Your task to perform on an android device: set an alarm Image 0: 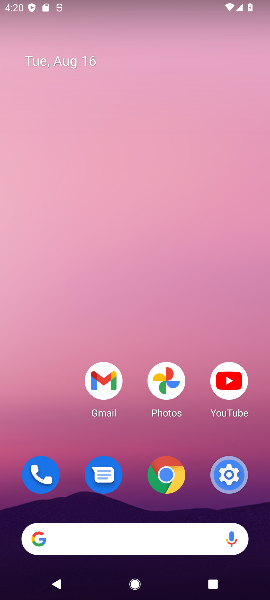
Step 0: drag from (203, 504) to (116, 2)
Your task to perform on an android device: set an alarm Image 1: 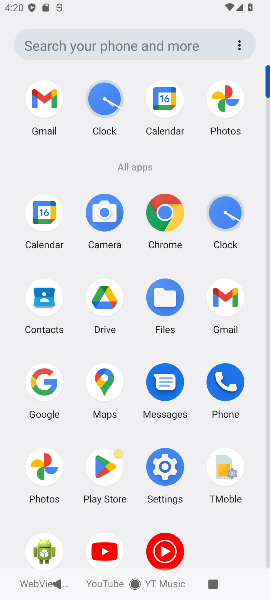
Step 1: click (225, 228)
Your task to perform on an android device: set an alarm Image 2: 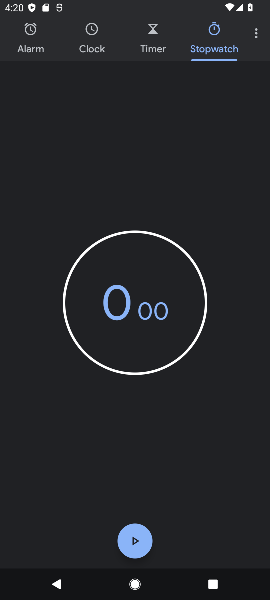
Step 2: click (31, 43)
Your task to perform on an android device: set an alarm Image 3: 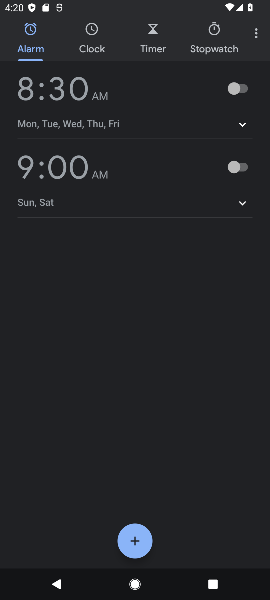
Step 3: click (237, 84)
Your task to perform on an android device: set an alarm Image 4: 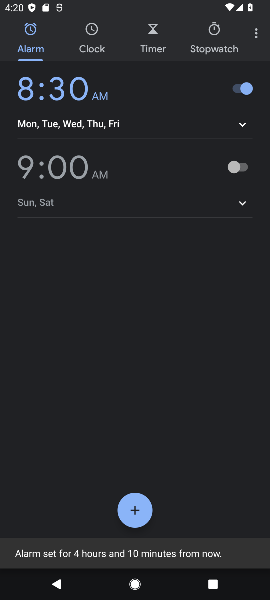
Step 4: task complete